Your task to perform on an android device: add a label to a message in the gmail app Image 0: 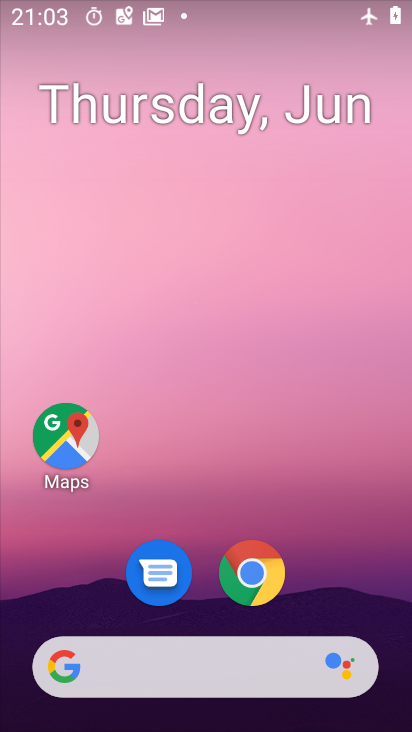
Step 0: drag from (300, 544) to (289, 263)
Your task to perform on an android device: add a label to a message in the gmail app Image 1: 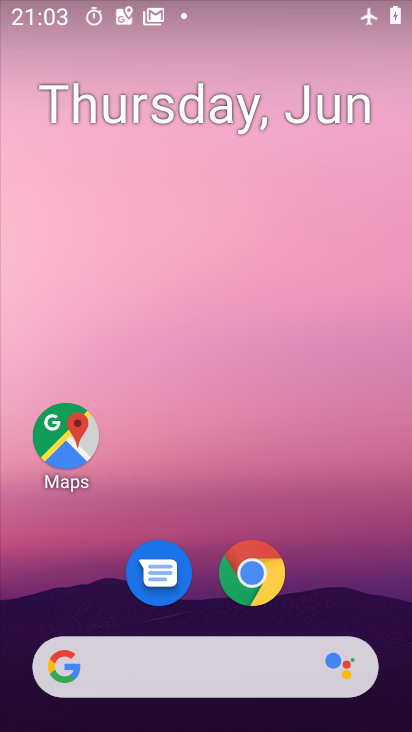
Step 1: drag from (214, 558) to (261, 145)
Your task to perform on an android device: add a label to a message in the gmail app Image 2: 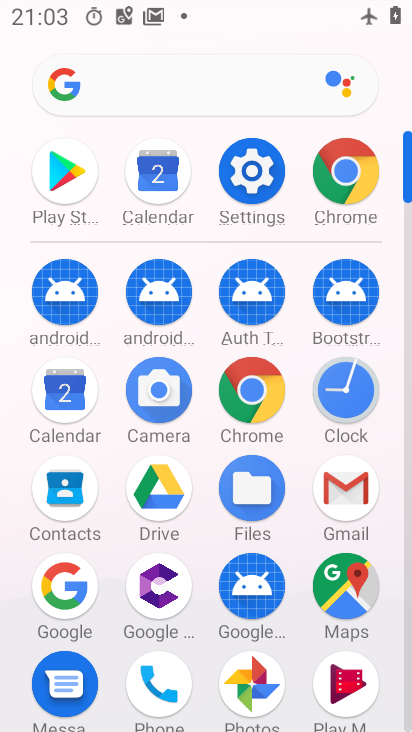
Step 2: click (336, 481)
Your task to perform on an android device: add a label to a message in the gmail app Image 3: 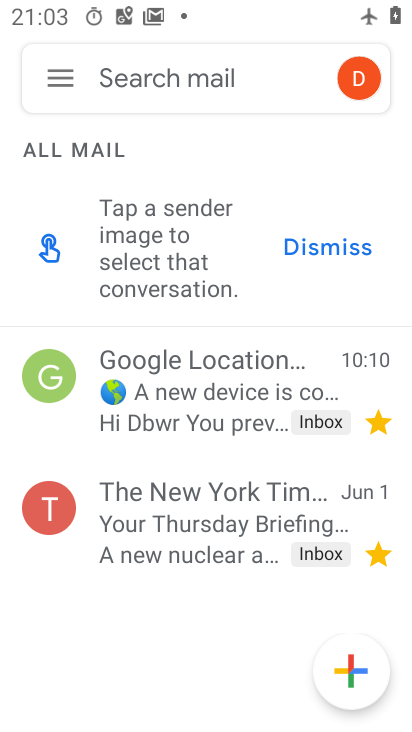
Step 3: click (54, 67)
Your task to perform on an android device: add a label to a message in the gmail app Image 4: 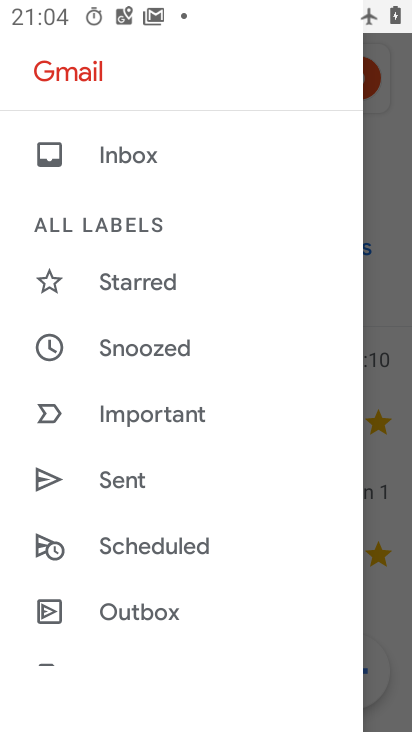
Step 4: drag from (195, 380) to (216, 198)
Your task to perform on an android device: add a label to a message in the gmail app Image 5: 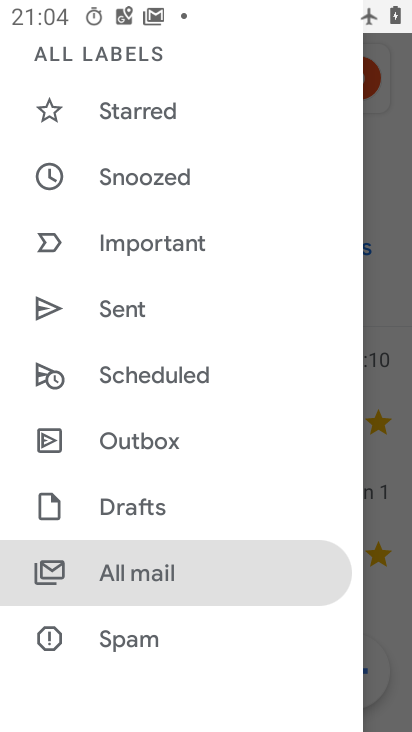
Step 5: click (158, 556)
Your task to perform on an android device: add a label to a message in the gmail app Image 6: 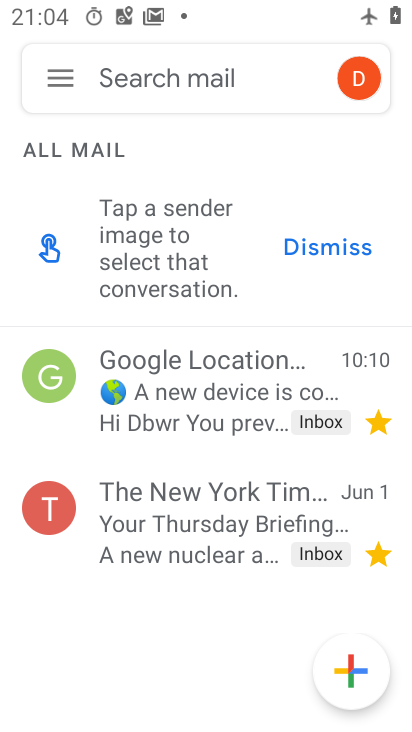
Step 6: click (50, 355)
Your task to perform on an android device: add a label to a message in the gmail app Image 7: 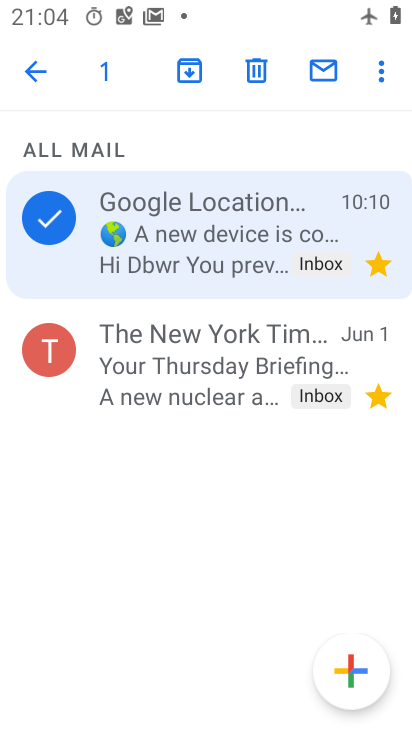
Step 7: click (50, 379)
Your task to perform on an android device: add a label to a message in the gmail app Image 8: 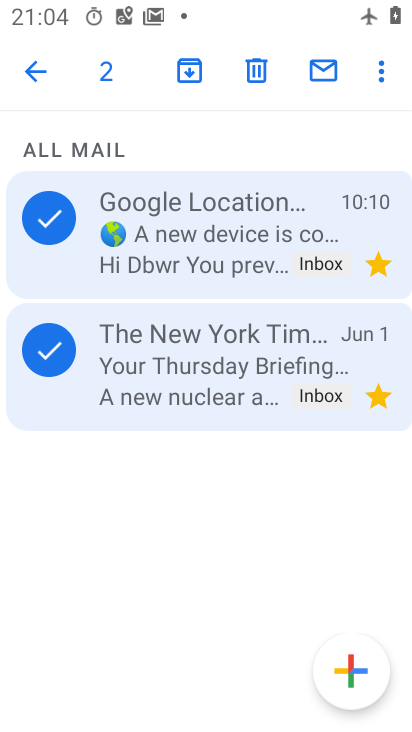
Step 8: click (31, 345)
Your task to perform on an android device: add a label to a message in the gmail app Image 9: 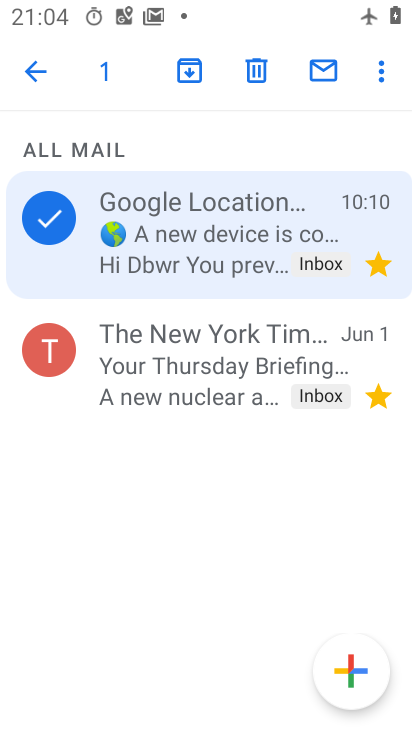
Step 9: click (375, 67)
Your task to perform on an android device: add a label to a message in the gmail app Image 10: 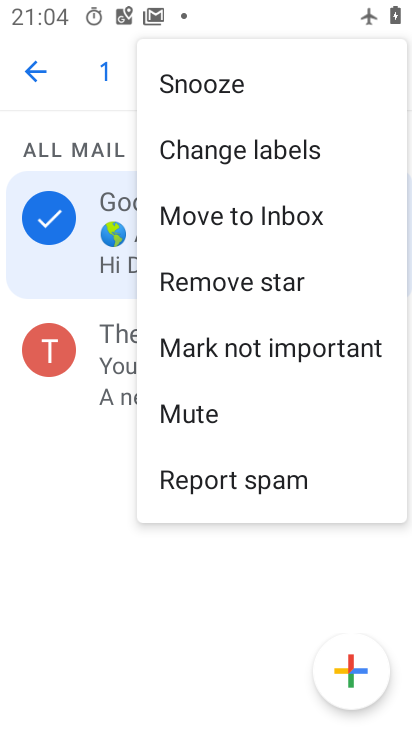
Step 10: click (213, 155)
Your task to perform on an android device: add a label to a message in the gmail app Image 11: 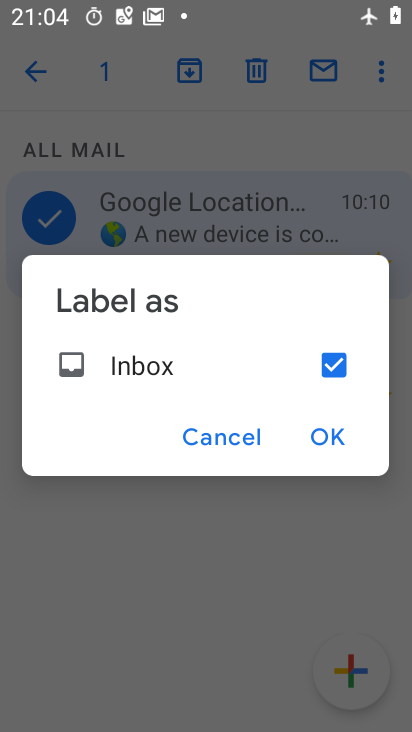
Step 11: click (299, 429)
Your task to perform on an android device: add a label to a message in the gmail app Image 12: 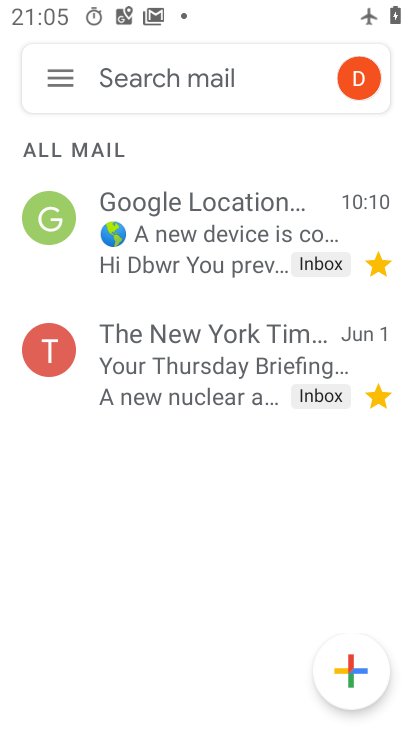
Step 12: task complete